Your task to perform on an android device: Open calendar and show me the second week of next month Image 0: 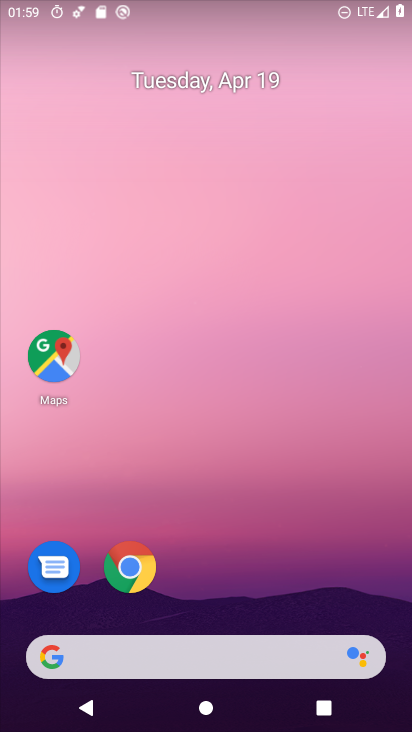
Step 0: drag from (232, 527) to (256, 83)
Your task to perform on an android device: Open calendar and show me the second week of next month Image 1: 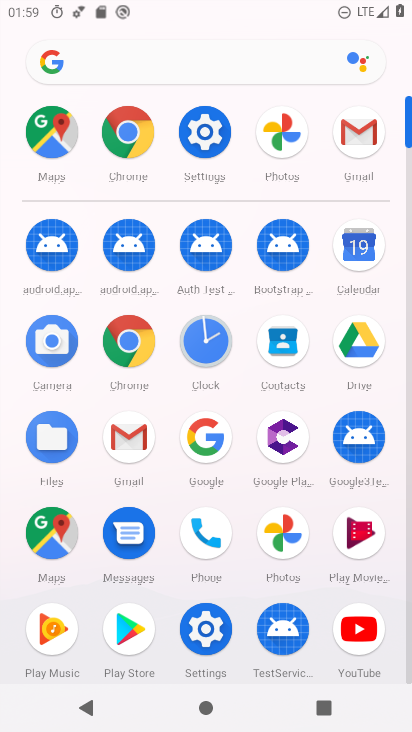
Step 1: click (367, 253)
Your task to perform on an android device: Open calendar and show me the second week of next month Image 2: 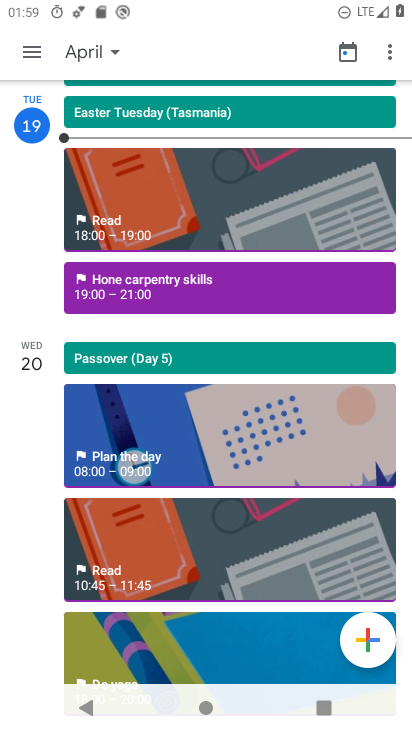
Step 2: click (82, 44)
Your task to perform on an android device: Open calendar and show me the second week of next month Image 3: 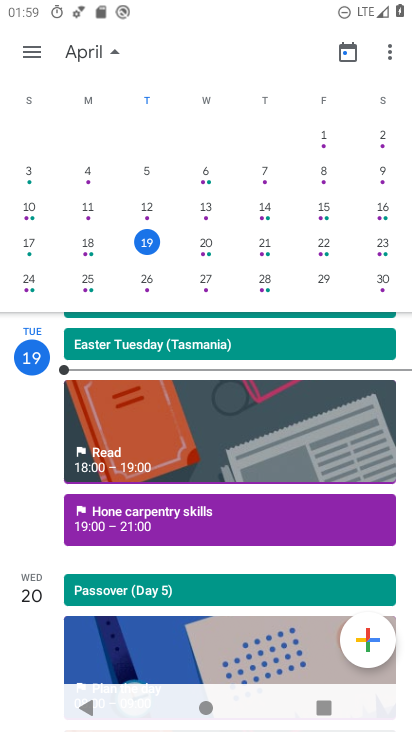
Step 3: drag from (354, 237) to (4, 206)
Your task to perform on an android device: Open calendar and show me the second week of next month Image 4: 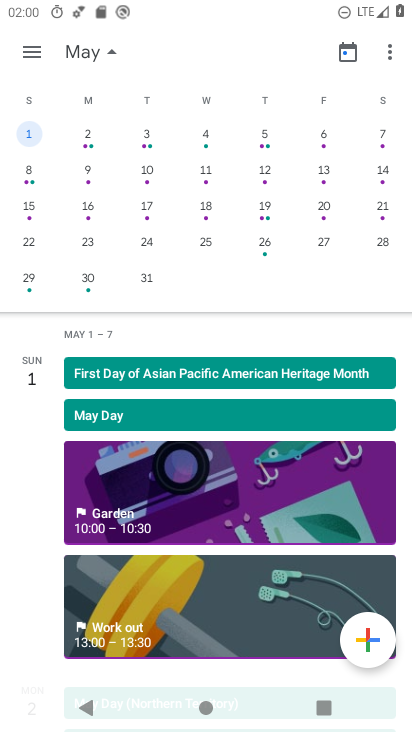
Step 4: click (88, 172)
Your task to perform on an android device: Open calendar and show me the second week of next month Image 5: 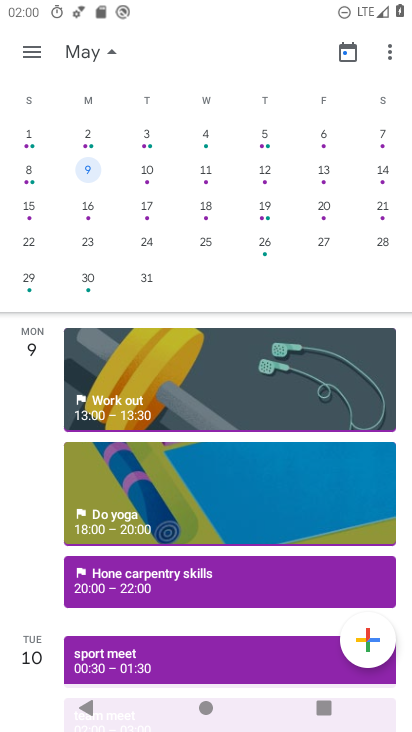
Step 5: task complete